Your task to perform on an android device: set an alarm Image 0: 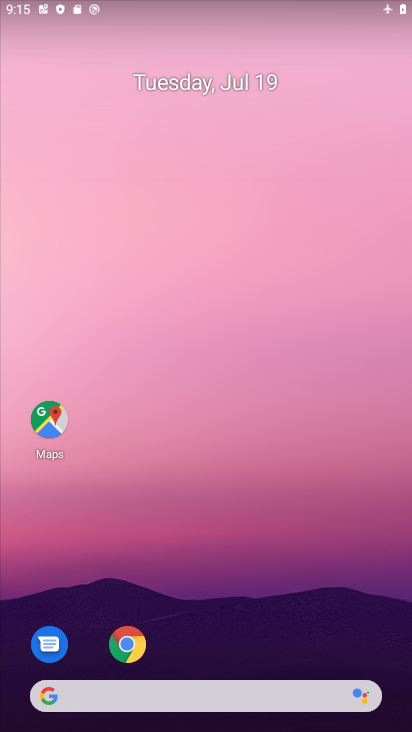
Step 0: drag from (201, 671) to (135, 190)
Your task to perform on an android device: set an alarm Image 1: 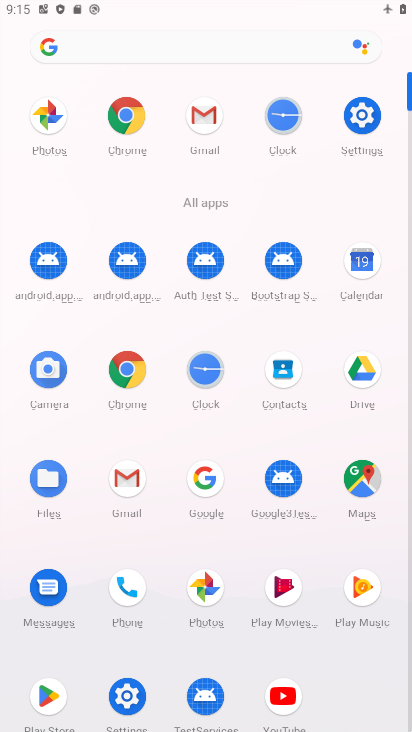
Step 1: click (198, 361)
Your task to perform on an android device: set an alarm Image 2: 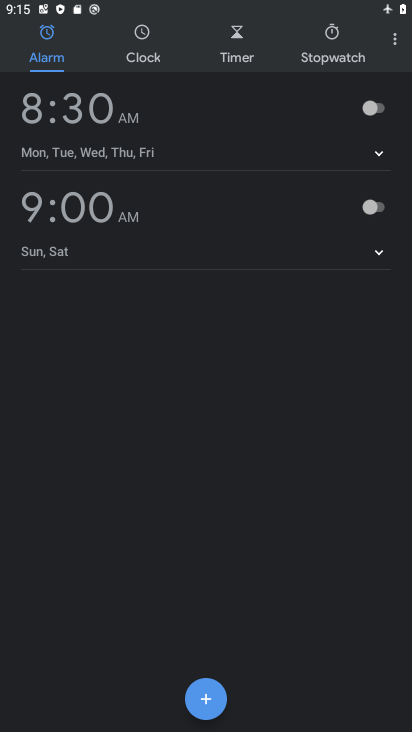
Step 2: click (194, 706)
Your task to perform on an android device: set an alarm Image 3: 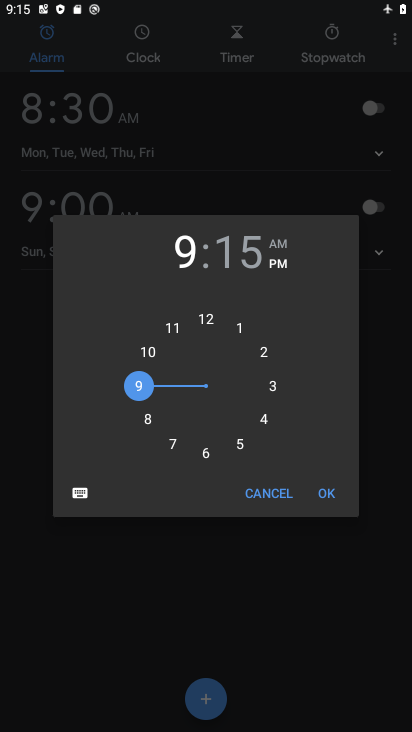
Step 3: click (330, 502)
Your task to perform on an android device: set an alarm Image 4: 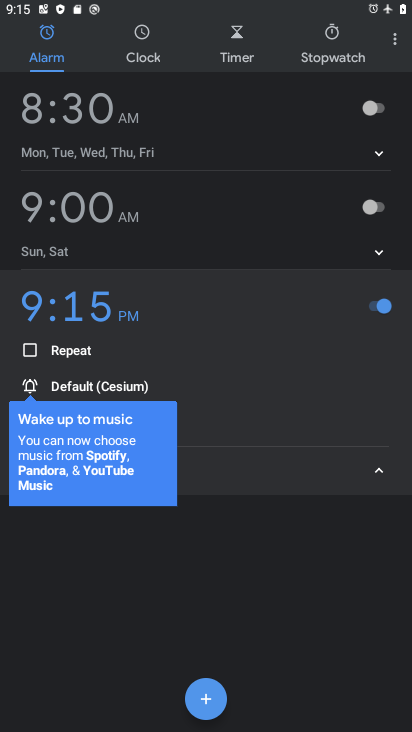
Step 4: task complete